Your task to perform on an android device: turn off notifications in google photos Image 0: 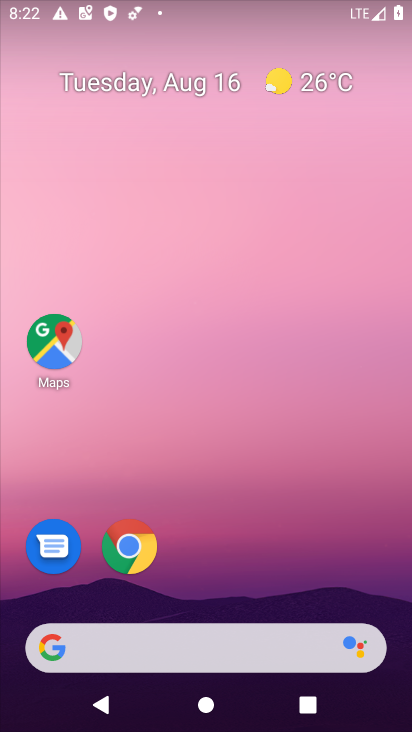
Step 0: drag from (224, 552) to (275, 0)
Your task to perform on an android device: turn off notifications in google photos Image 1: 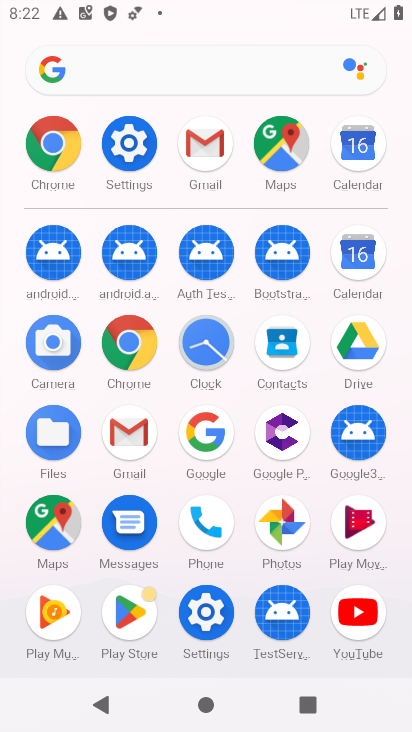
Step 1: click (281, 523)
Your task to perform on an android device: turn off notifications in google photos Image 2: 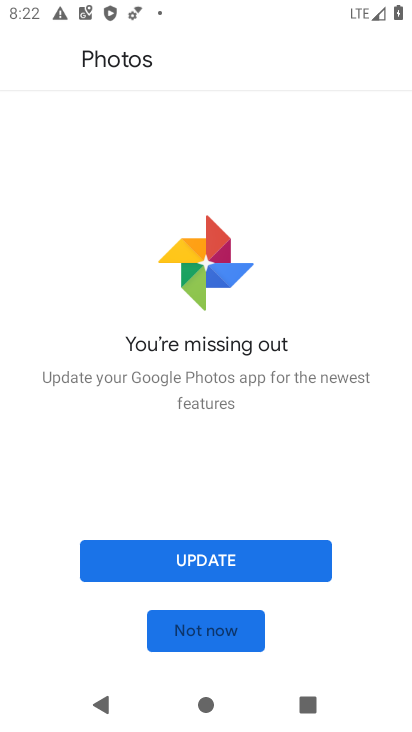
Step 2: click (252, 630)
Your task to perform on an android device: turn off notifications in google photos Image 3: 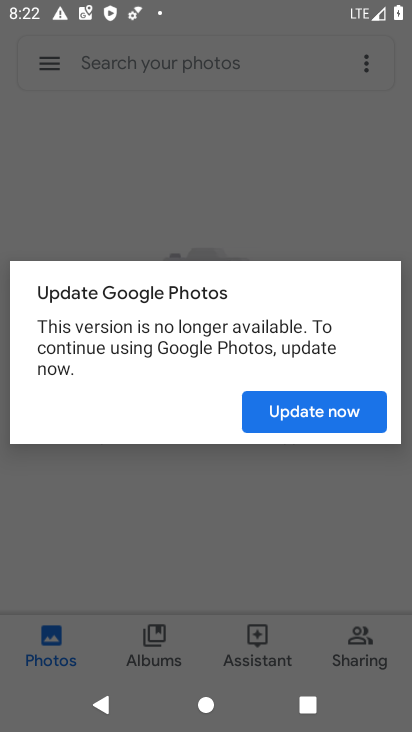
Step 3: click (320, 406)
Your task to perform on an android device: turn off notifications in google photos Image 4: 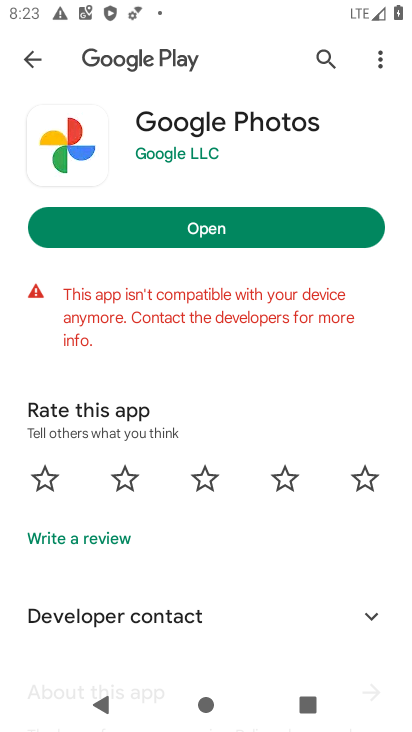
Step 4: click (284, 232)
Your task to perform on an android device: turn off notifications in google photos Image 5: 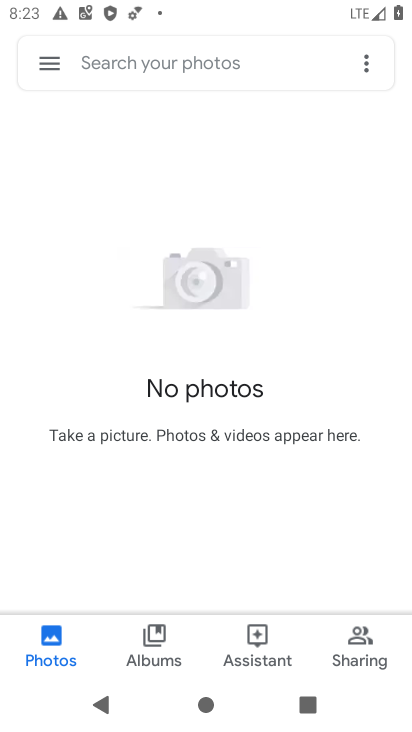
Step 5: click (49, 65)
Your task to perform on an android device: turn off notifications in google photos Image 6: 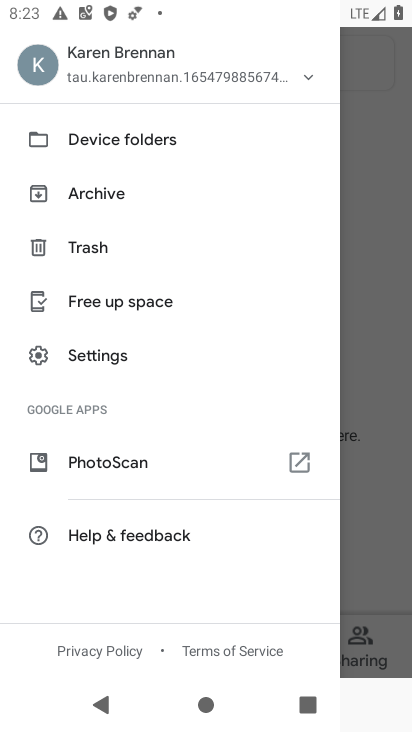
Step 6: click (96, 351)
Your task to perform on an android device: turn off notifications in google photos Image 7: 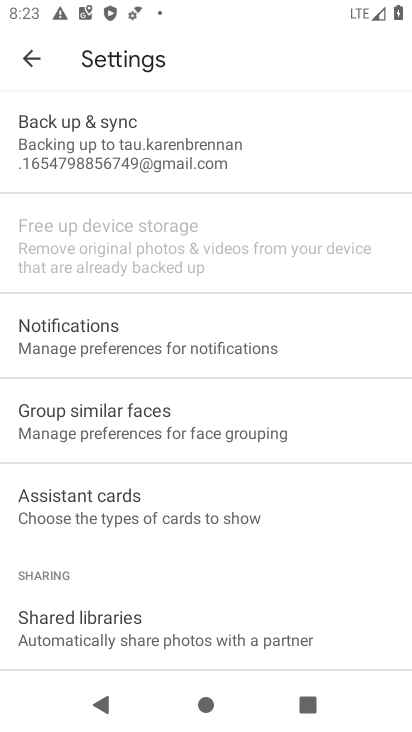
Step 7: click (98, 341)
Your task to perform on an android device: turn off notifications in google photos Image 8: 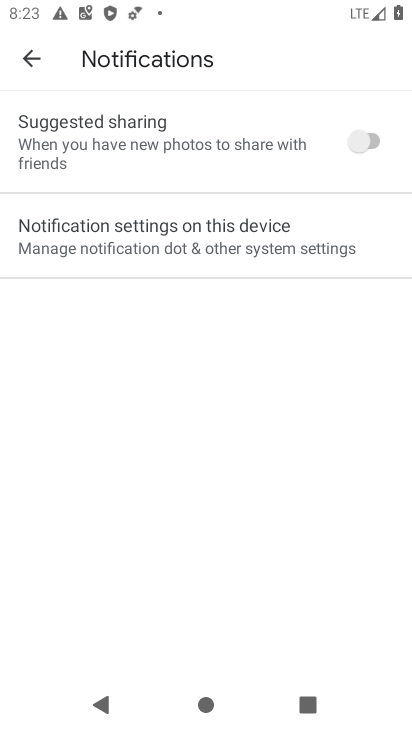
Step 8: click (186, 239)
Your task to perform on an android device: turn off notifications in google photos Image 9: 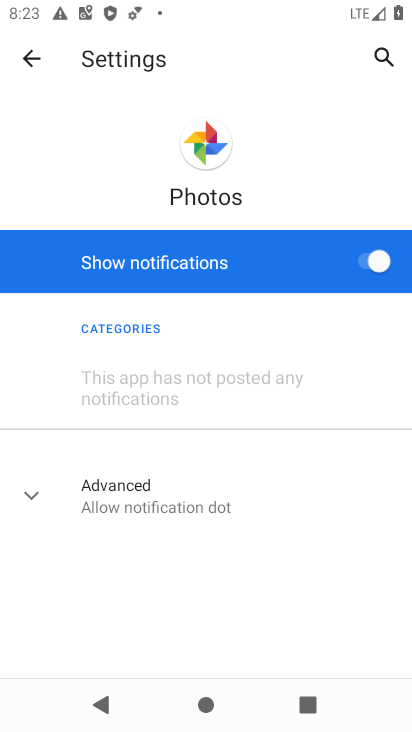
Step 9: click (367, 255)
Your task to perform on an android device: turn off notifications in google photos Image 10: 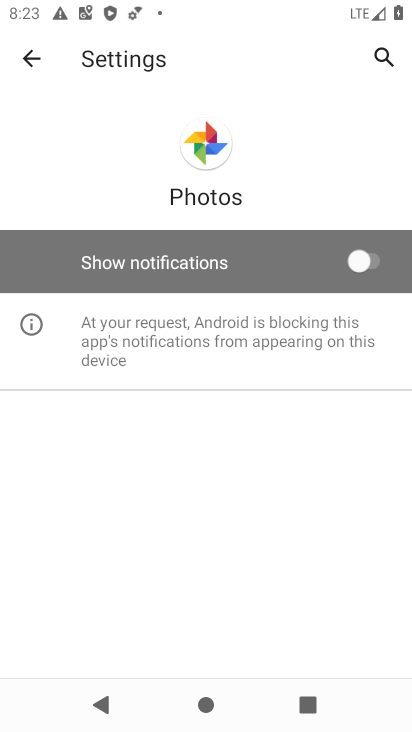
Step 10: task complete